Your task to perform on an android device: set the stopwatch Image 0: 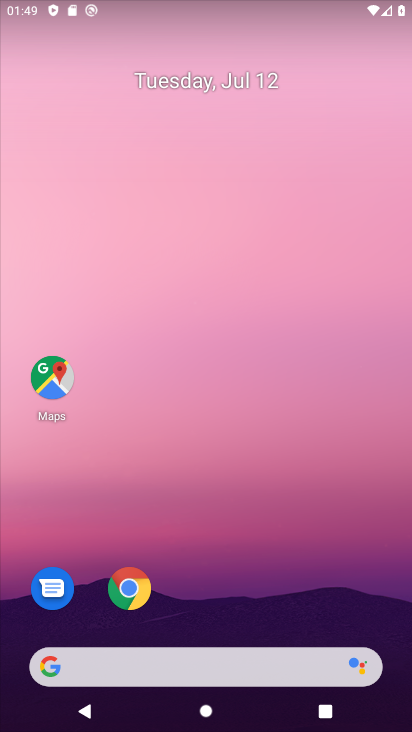
Step 0: drag from (192, 630) to (178, 390)
Your task to perform on an android device: set the stopwatch Image 1: 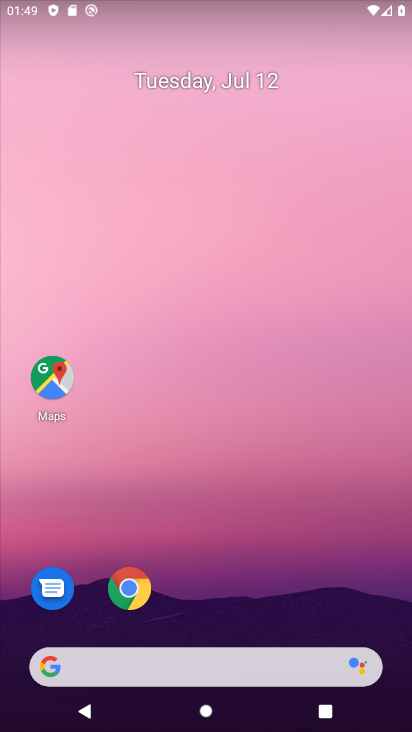
Step 1: drag from (193, 634) to (265, 260)
Your task to perform on an android device: set the stopwatch Image 2: 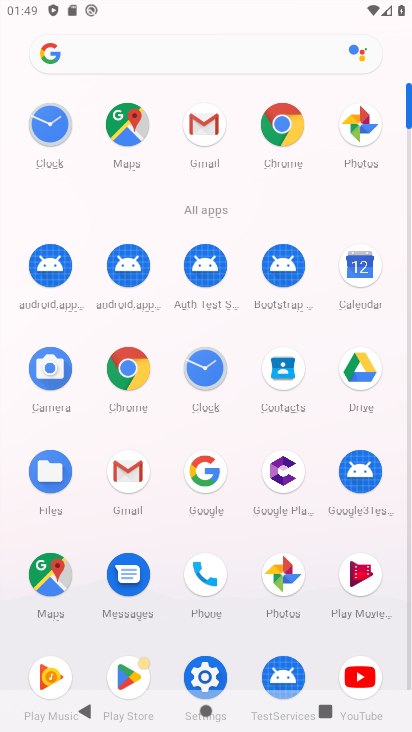
Step 2: click (208, 367)
Your task to perform on an android device: set the stopwatch Image 3: 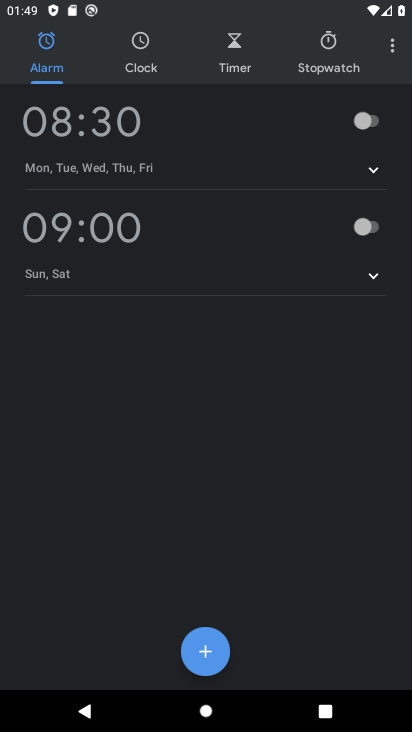
Step 3: click (322, 54)
Your task to perform on an android device: set the stopwatch Image 4: 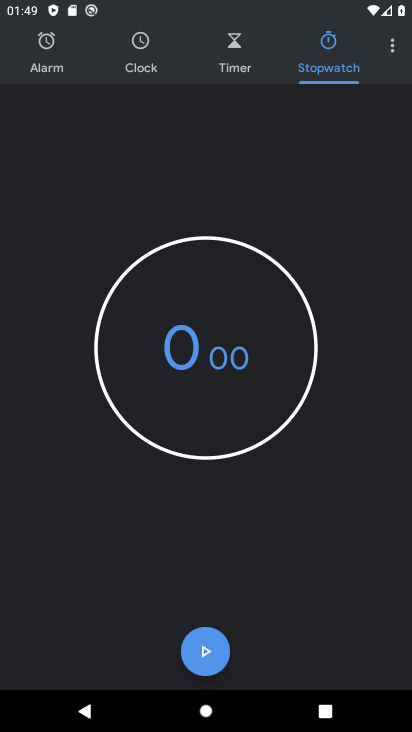
Step 4: task complete